Your task to perform on an android device: toggle notification dots Image 0: 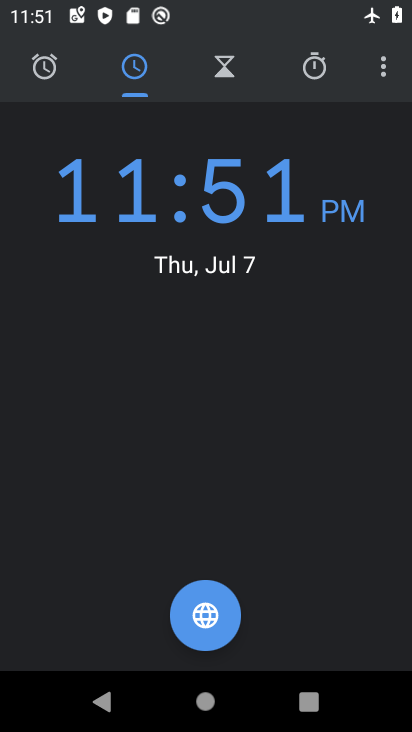
Step 0: press home button
Your task to perform on an android device: toggle notification dots Image 1: 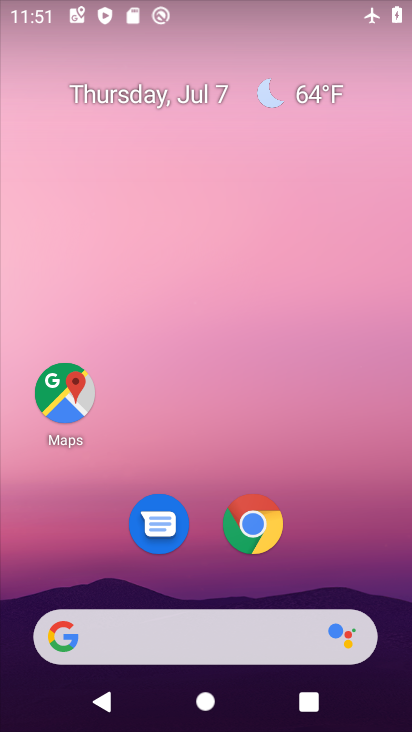
Step 1: drag from (328, 511) to (323, 38)
Your task to perform on an android device: toggle notification dots Image 2: 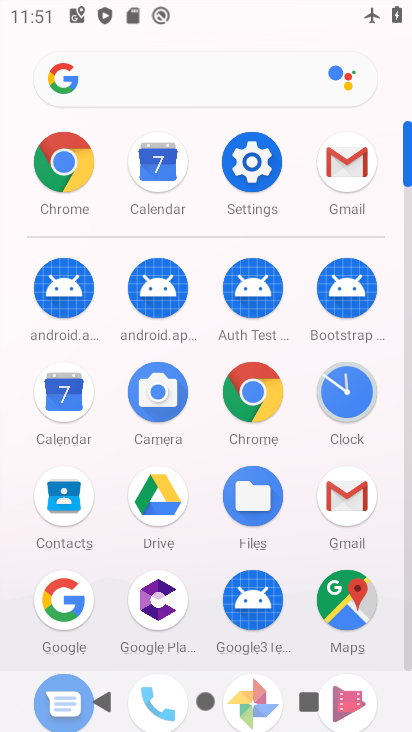
Step 2: click (261, 163)
Your task to perform on an android device: toggle notification dots Image 3: 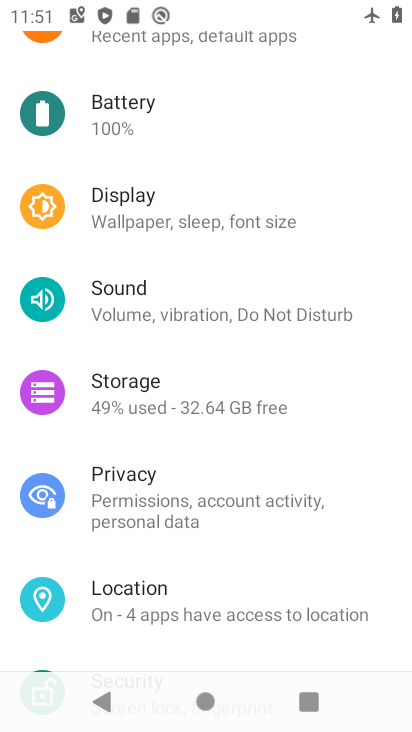
Step 3: drag from (246, 164) to (223, 568)
Your task to perform on an android device: toggle notification dots Image 4: 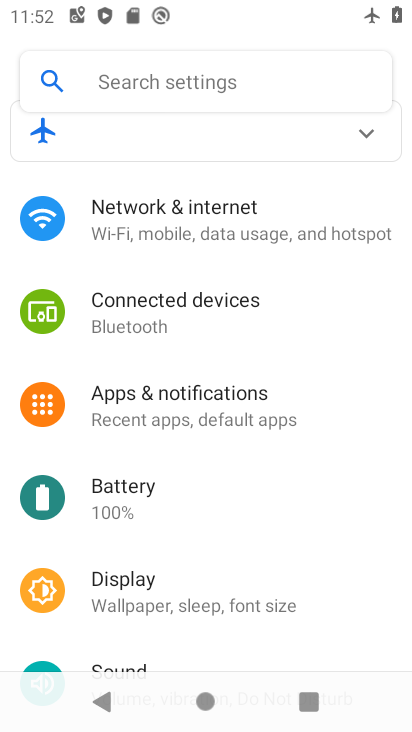
Step 4: click (211, 401)
Your task to perform on an android device: toggle notification dots Image 5: 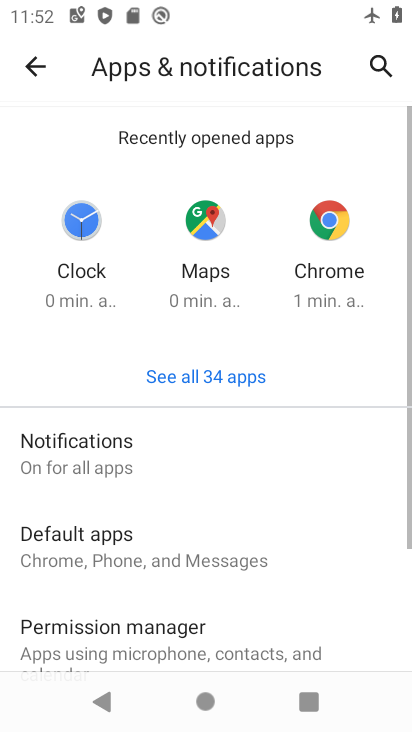
Step 5: click (118, 449)
Your task to perform on an android device: toggle notification dots Image 6: 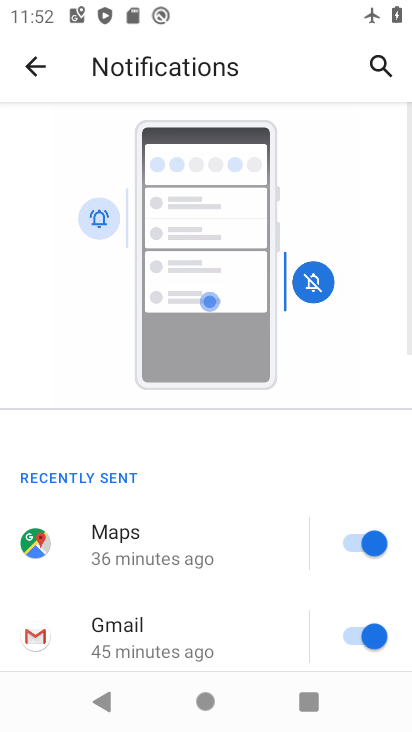
Step 6: drag from (223, 585) to (240, 76)
Your task to perform on an android device: toggle notification dots Image 7: 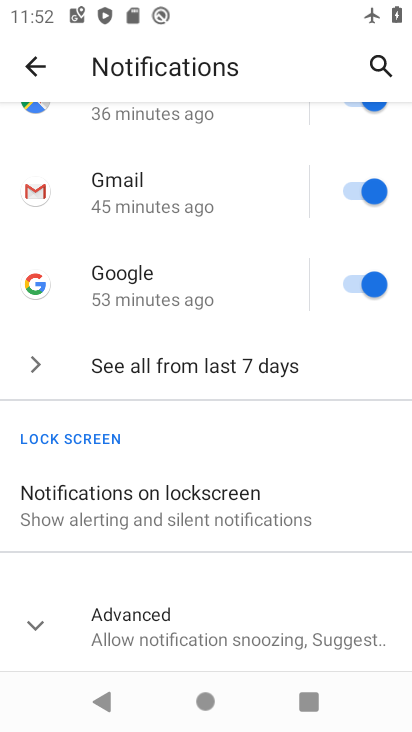
Step 7: click (36, 628)
Your task to perform on an android device: toggle notification dots Image 8: 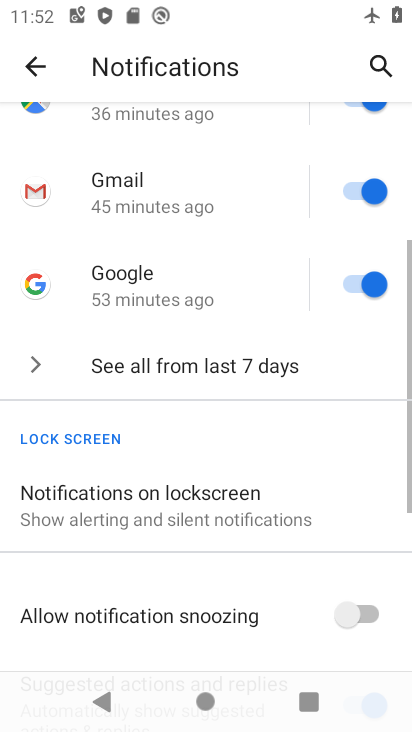
Step 8: drag from (194, 574) to (233, 182)
Your task to perform on an android device: toggle notification dots Image 9: 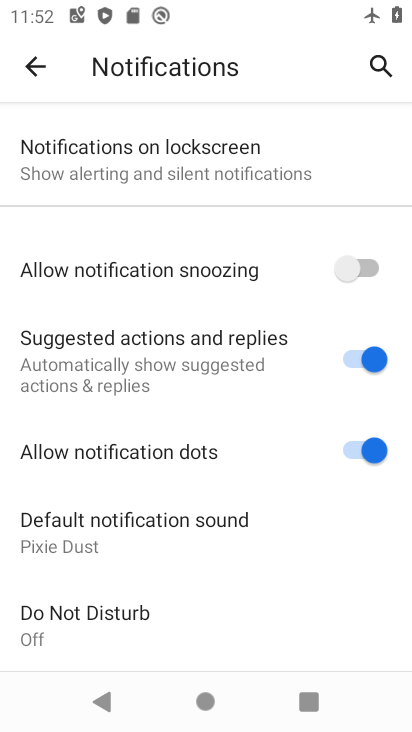
Step 9: click (356, 446)
Your task to perform on an android device: toggle notification dots Image 10: 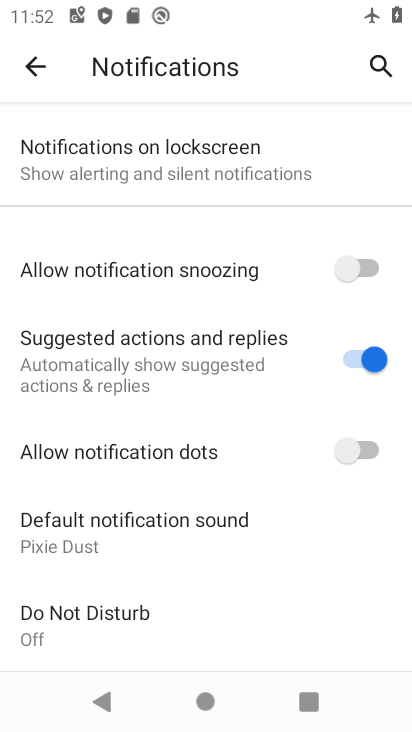
Step 10: task complete